Your task to perform on an android device: open app "WhatsApp Messenger" Image 0: 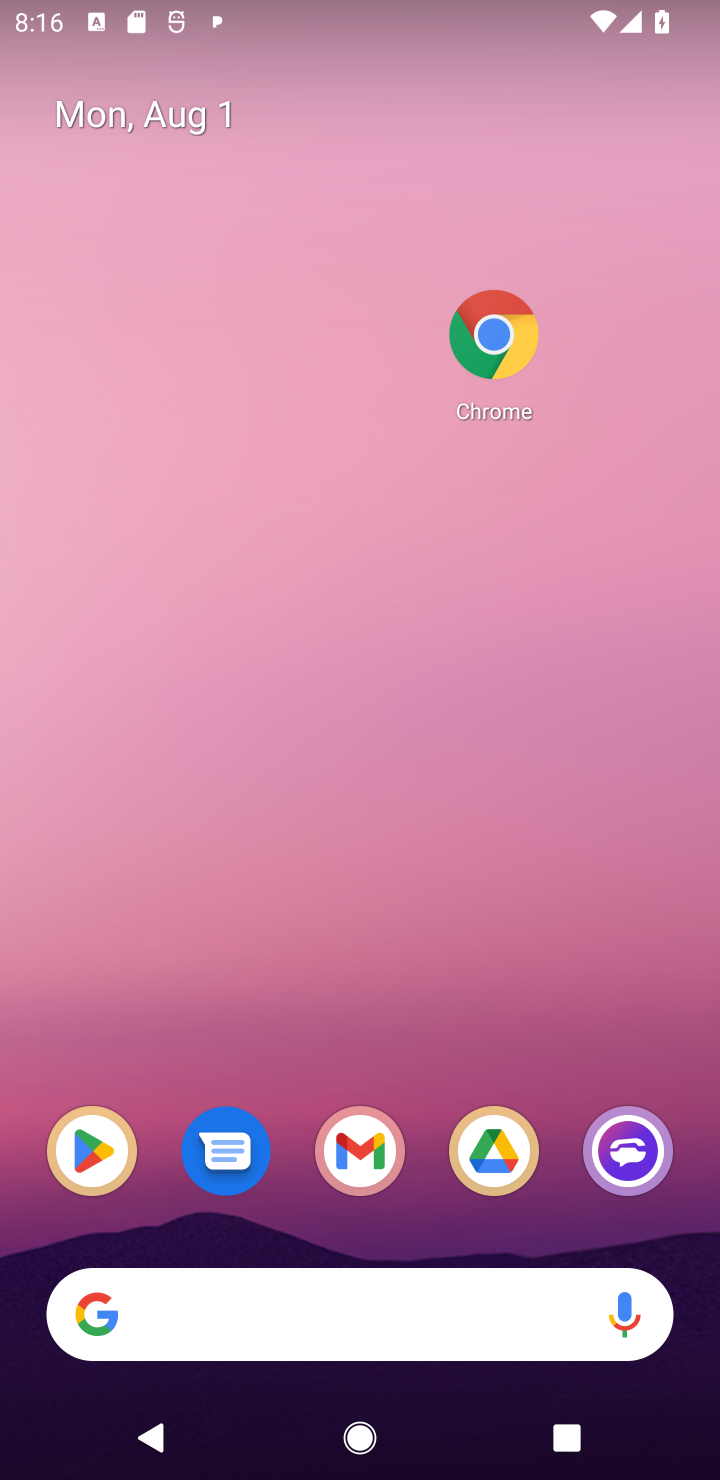
Step 0: click (105, 1144)
Your task to perform on an android device: open app "WhatsApp Messenger" Image 1: 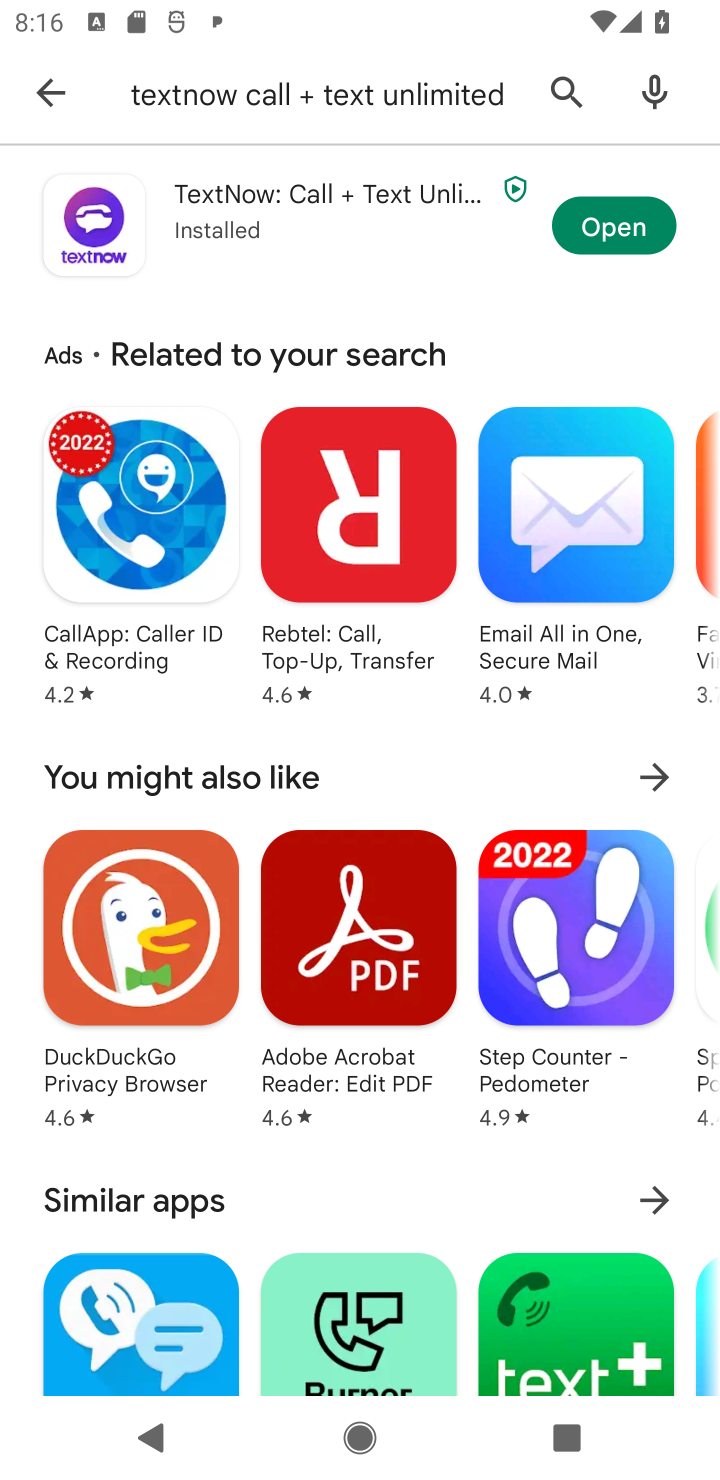
Step 1: click (563, 82)
Your task to perform on an android device: open app "WhatsApp Messenger" Image 2: 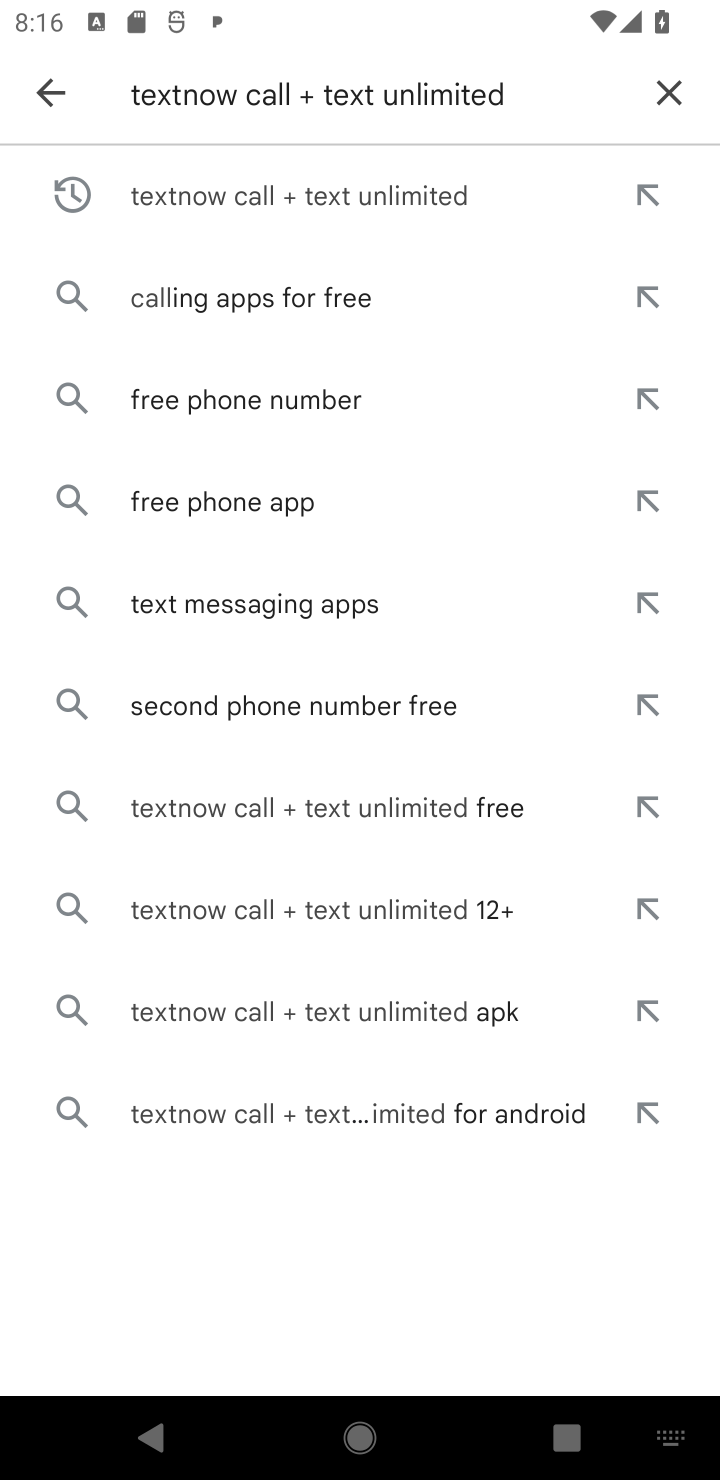
Step 2: click (671, 87)
Your task to perform on an android device: open app "WhatsApp Messenger" Image 3: 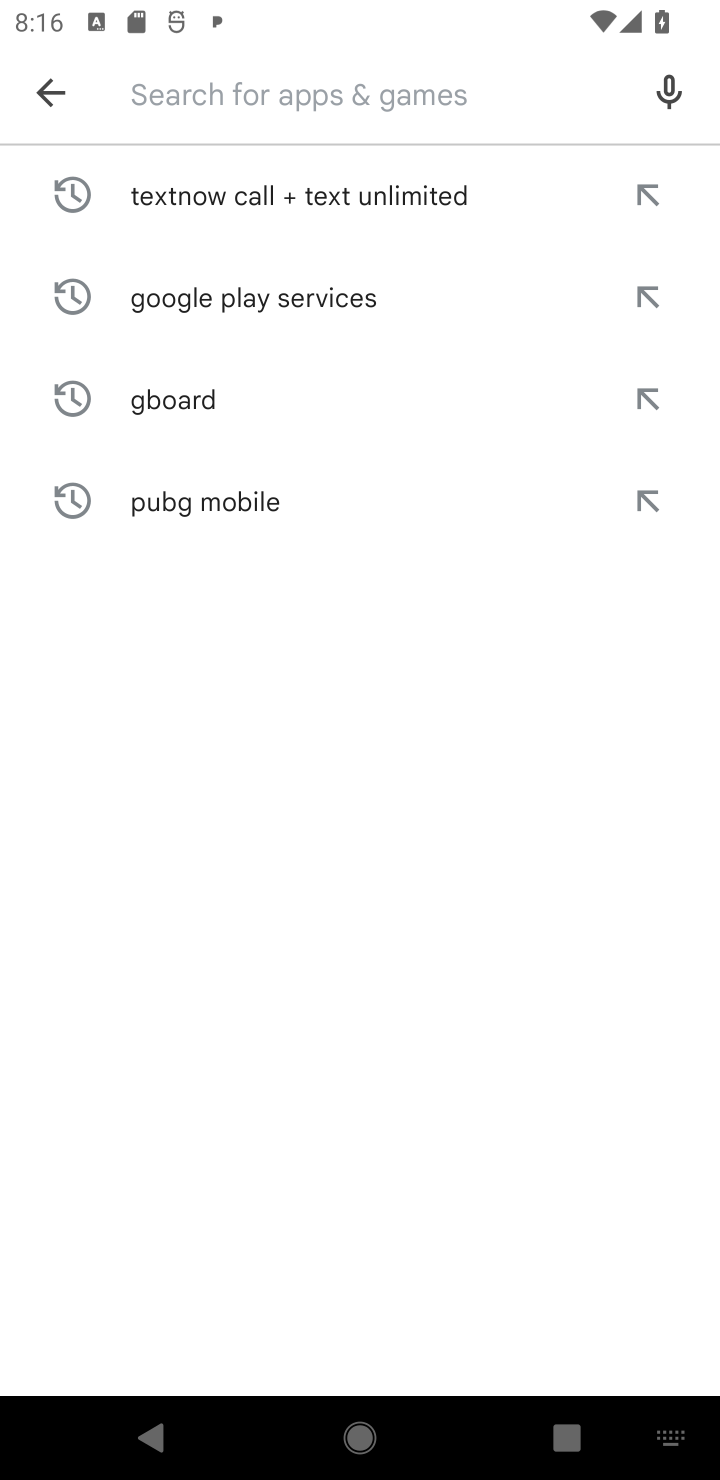
Step 3: type "WhatsApp Messenger"
Your task to perform on an android device: open app "WhatsApp Messenger" Image 4: 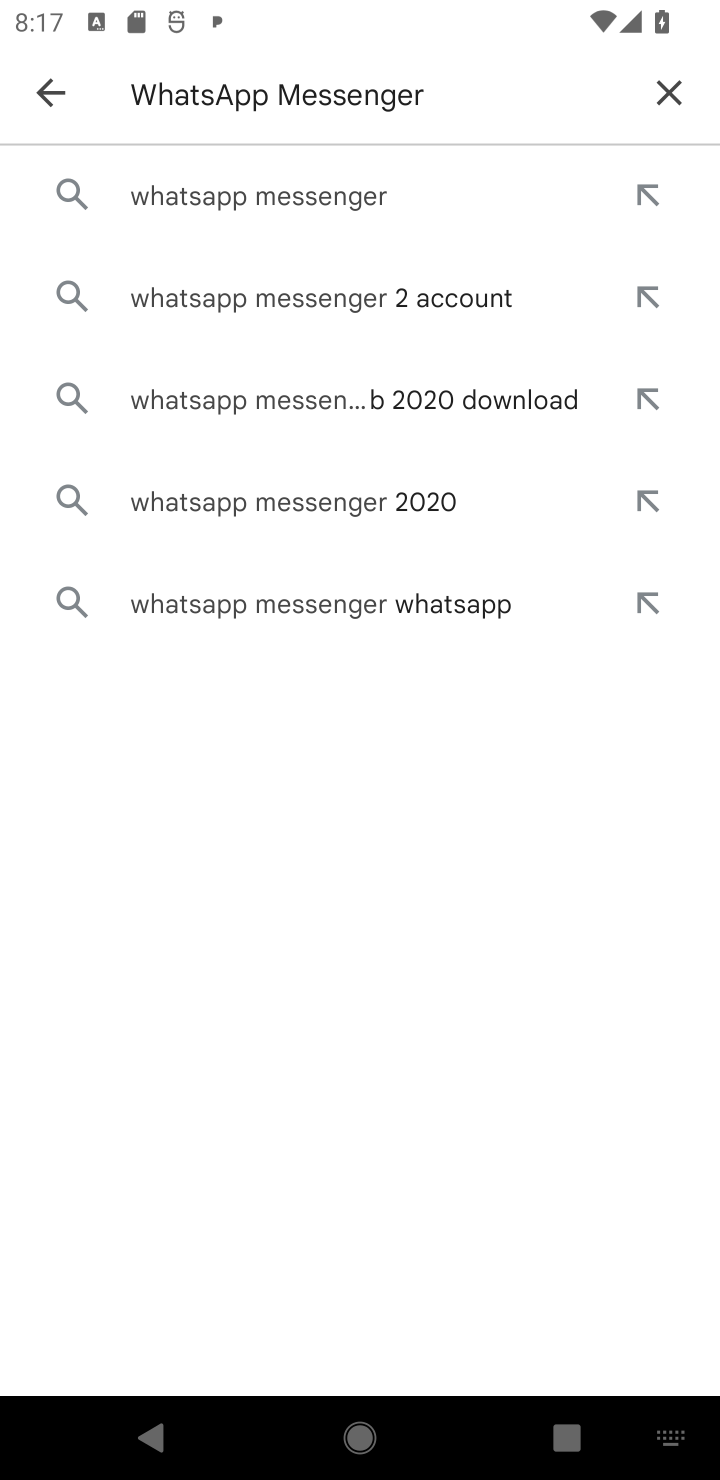
Step 4: click (256, 210)
Your task to perform on an android device: open app "WhatsApp Messenger" Image 5: 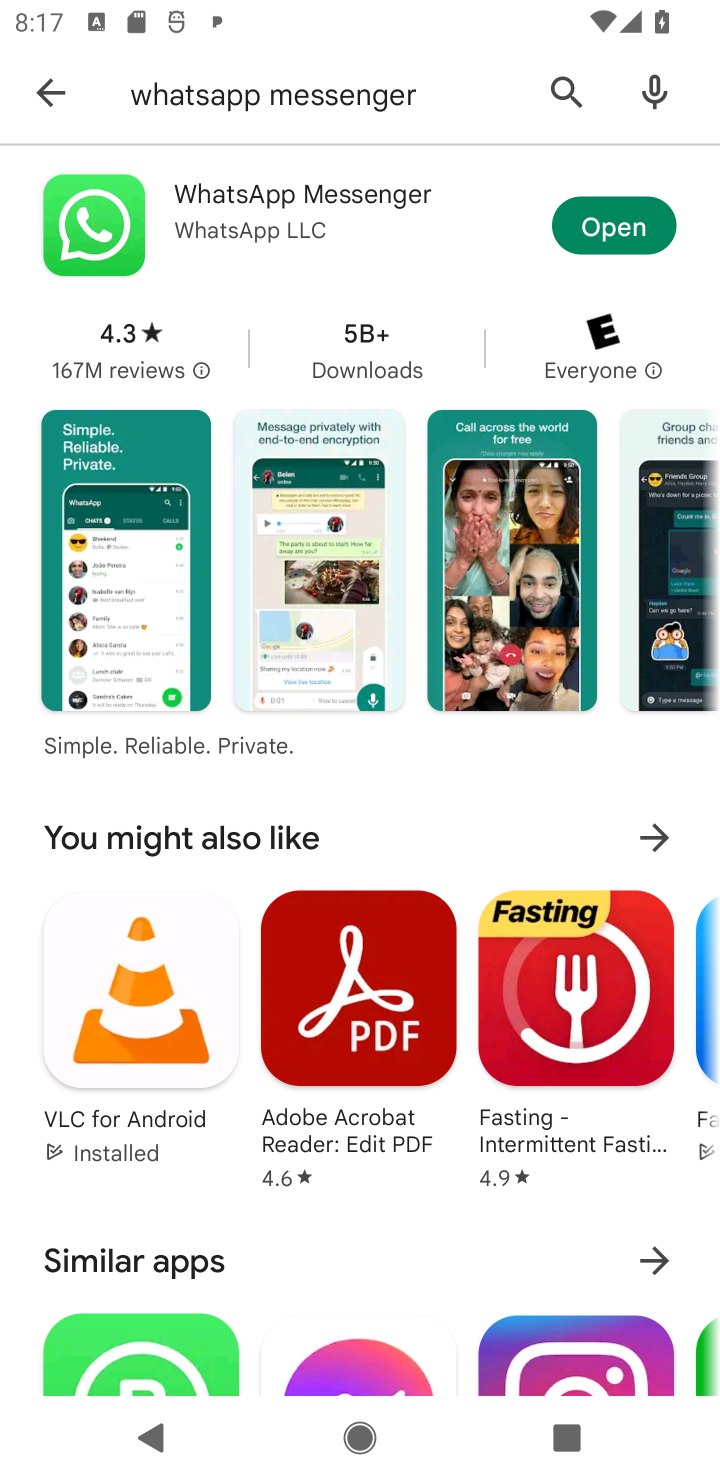
Step 5: click (581, 215)
Your task to perform on an android device: open app "WhatsApp Messenger" Image 6: 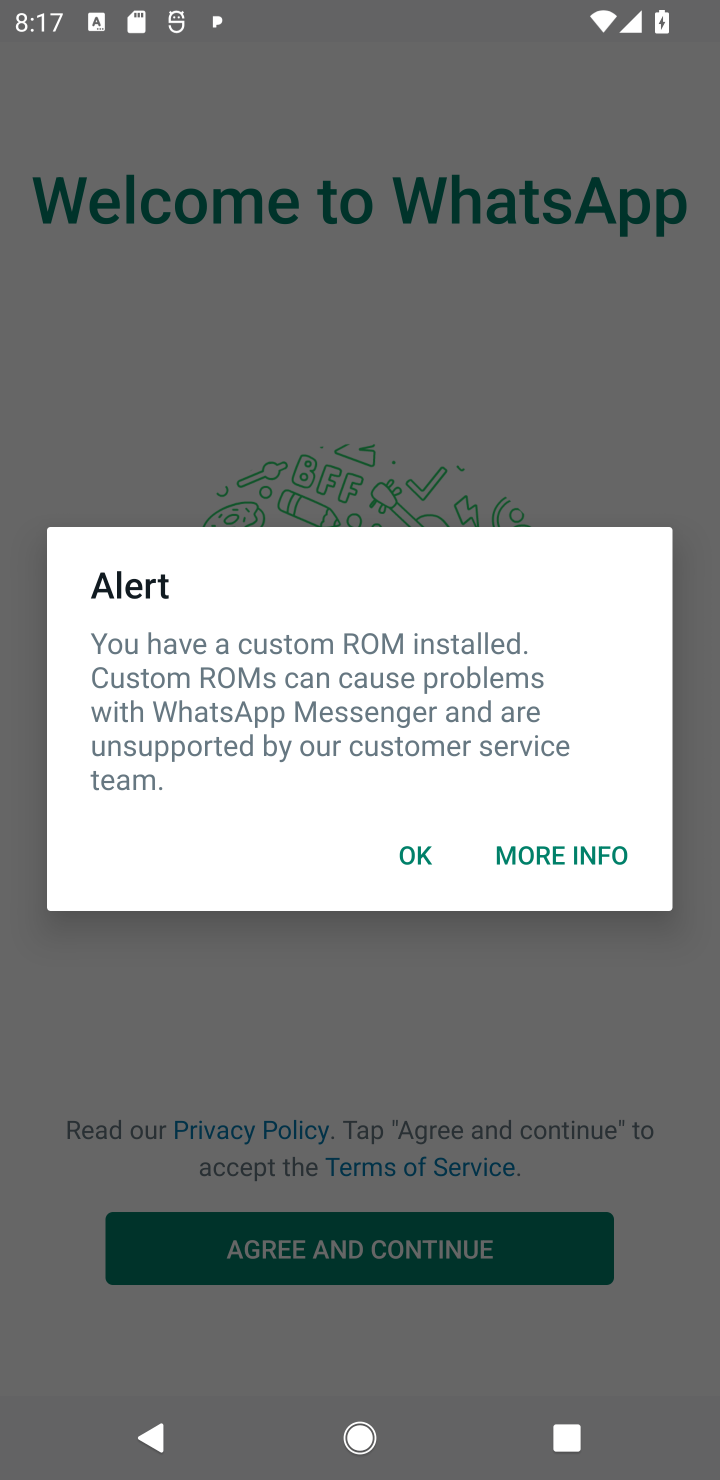
Step 6: task complete